Your task to perform on an android device: What's the weather today? Image 0: 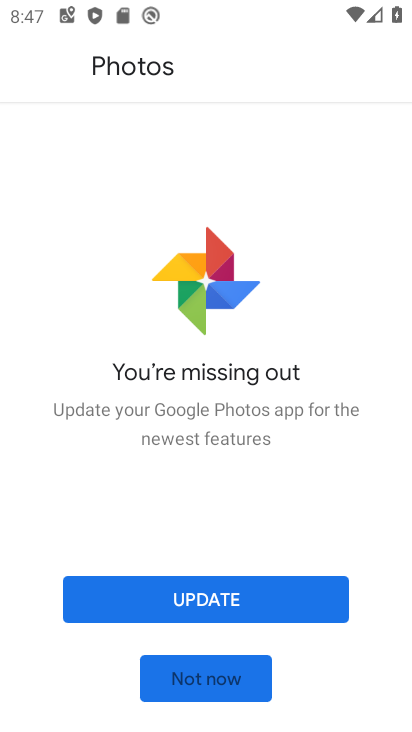
Step 0: press home button
Your task to perform on an android device: What's the weather today? Image 1: 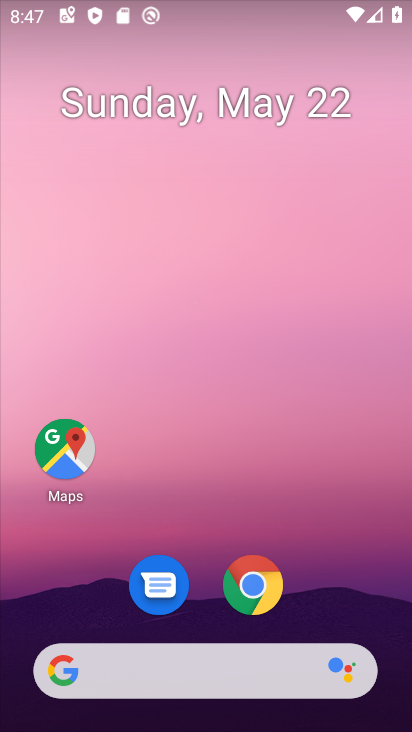
Step 1: click (171, 672)
Your task to perform on an android device: What's the weather today? Image 2: 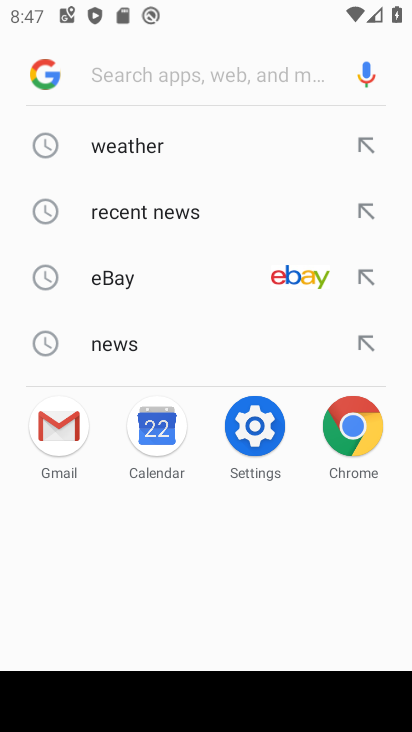
Step 2: click (92, 145)
Your task to perform on an android device: What's the weather today? Image 3: 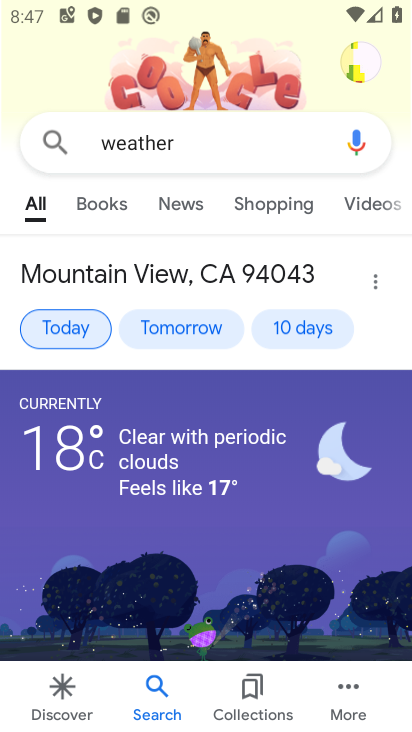
Step 3: click (52, 329)
Your task to perform on an android device: What's the weather today? Image 4: 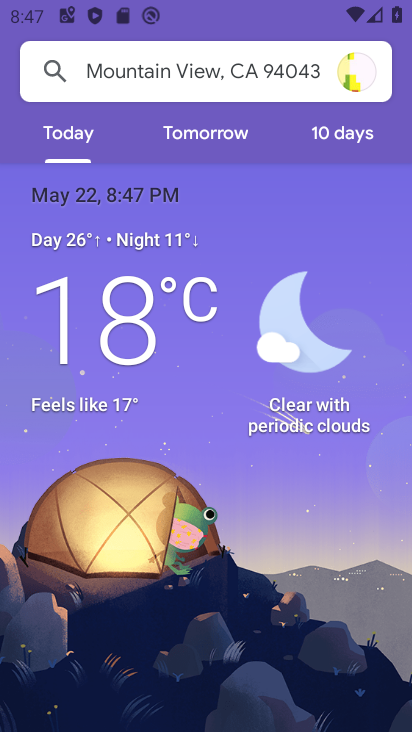
Step 4: task complete